Your task to perform on an android device: Show me popular videos on Youtube Image 0: 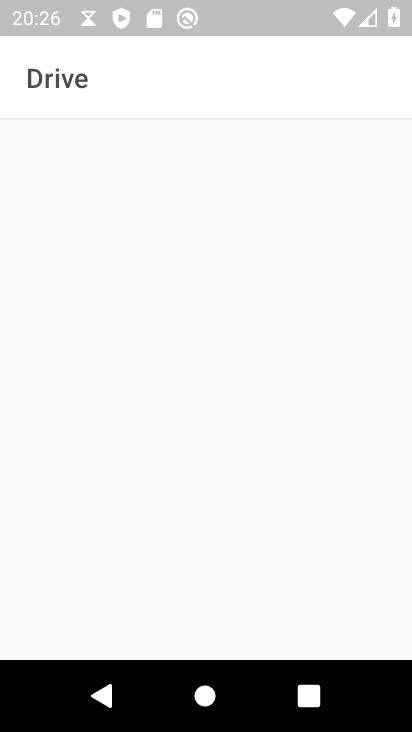
Step 0: press home button
Your task to perform on an android device: Show me popular videos on Youtube Image 1: 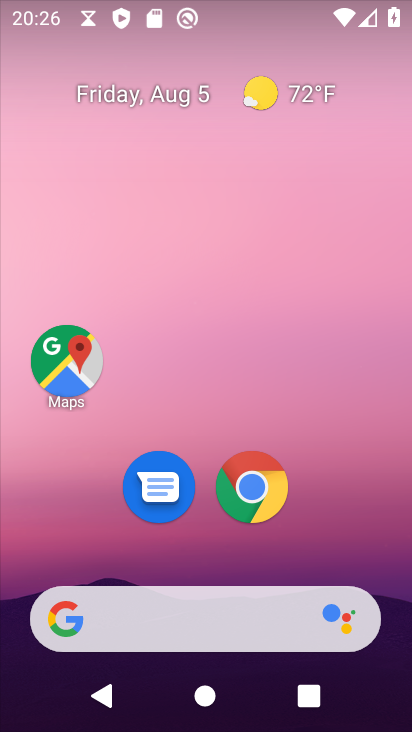
Step 1: drag from (230, 621) to (292, 62)
Your task to perform on an android device: Show me popular videos on Youtube Image 2: 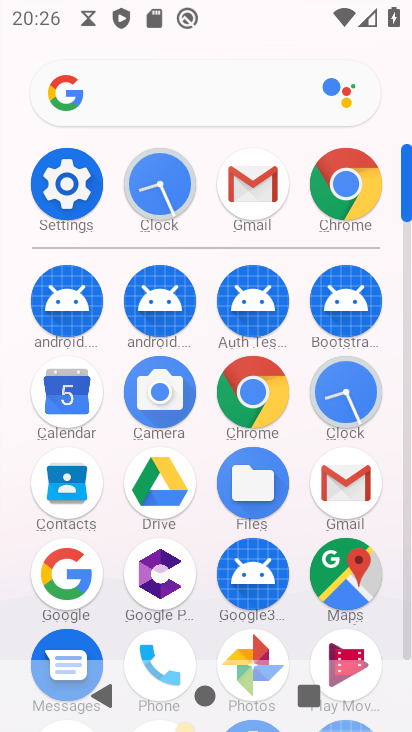
Step 2: drag from (289, 610) to (325, 281)
Your task to perform on an android device: Show me popular videos on Youtube Image 3: 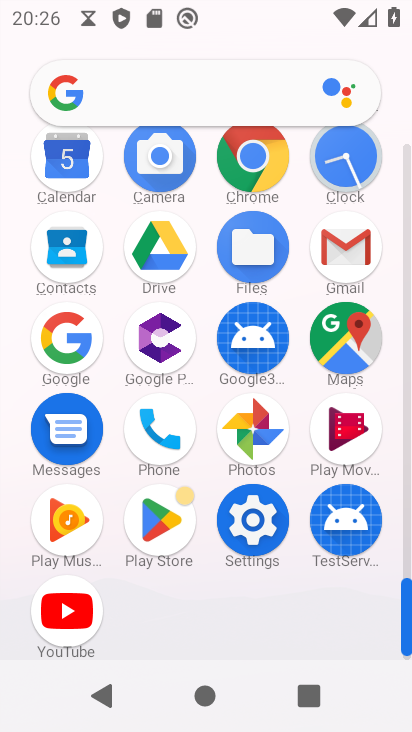
Step 3: click (64, 616)
Your task to perform on an android device: Show me popular videos on Youtube Image 4: 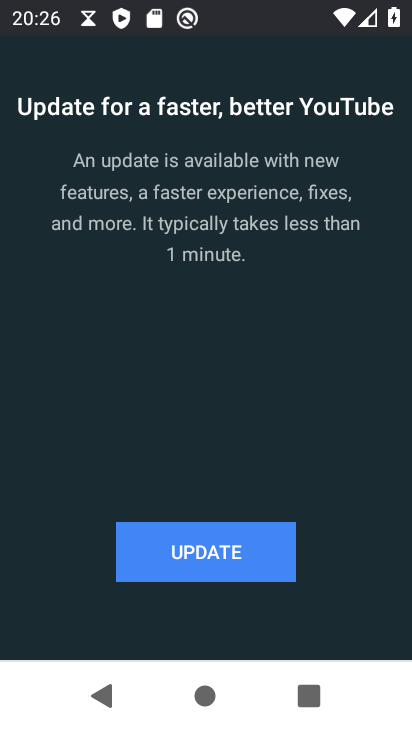
Step 4: click (218, 563)
Your task to perform on an android device: Show me popular videos on Youtube Image 5: 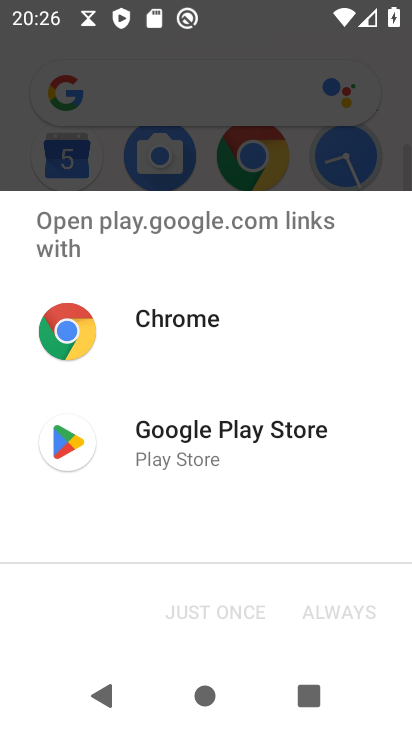
Step 5: click (202, 438)
Your task to perform on an android device: Show me popular videos on Youtube Image 6: 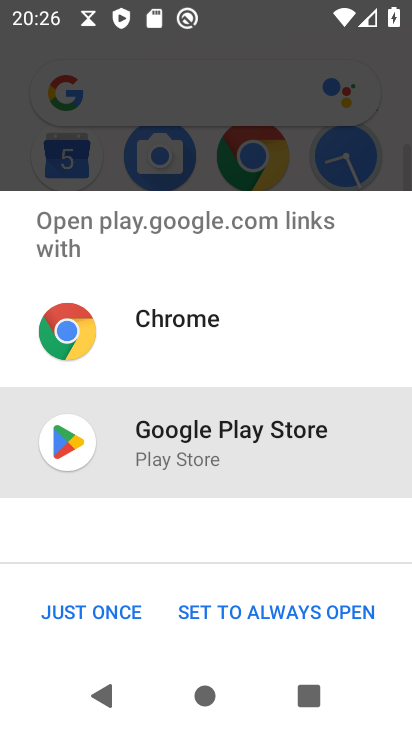
Step 6: click (71, 618)
Your task to perform on an android device: Show me popular videos on Youtube Image 7: 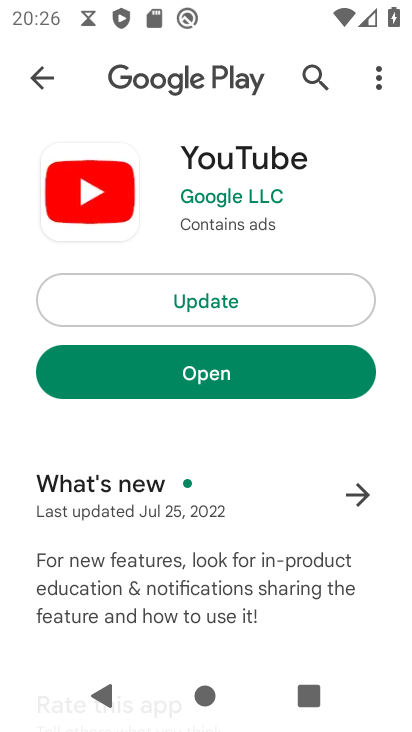
Step 7: click (186, 298)
Your task to perform on an android device: Show me popular videos on Youtube Image 8: 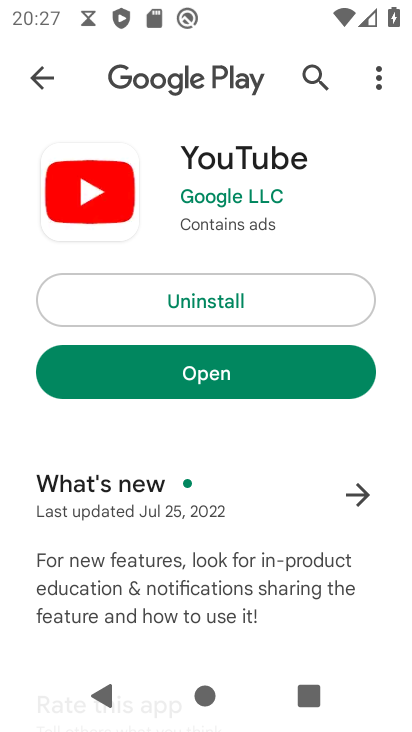
Step 8: click (234, 383)
Your task to perform on an android device: Show me popular videos on Youtube Image 9: 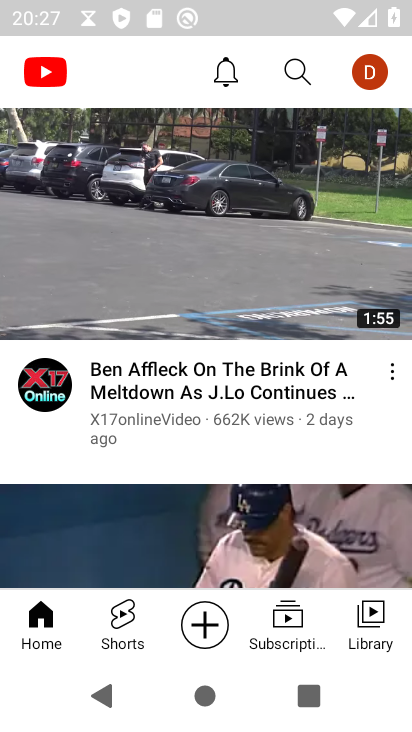
Step 9: task complete